Your task to perform on an android device: empty trash in the gmail app Image 0: 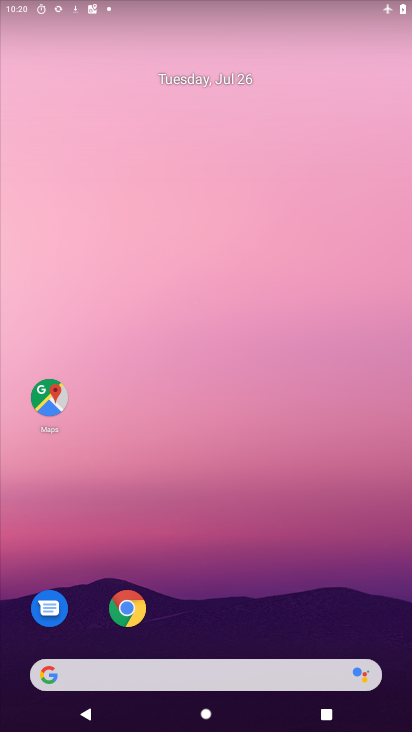
Step 0: drag from (209, 604) to (201, 81)
Your task to perform on an android device: empty trash in the gmail app Image 1: 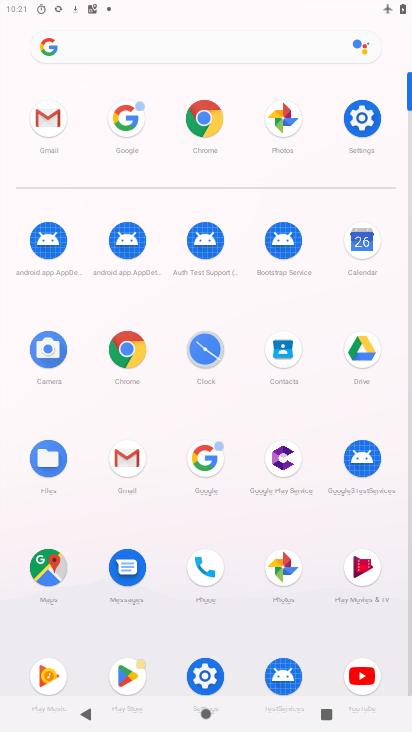
Step 1: click (31, 120)
Your task to perform on an android device: empty trash in the gmail app Image 2: 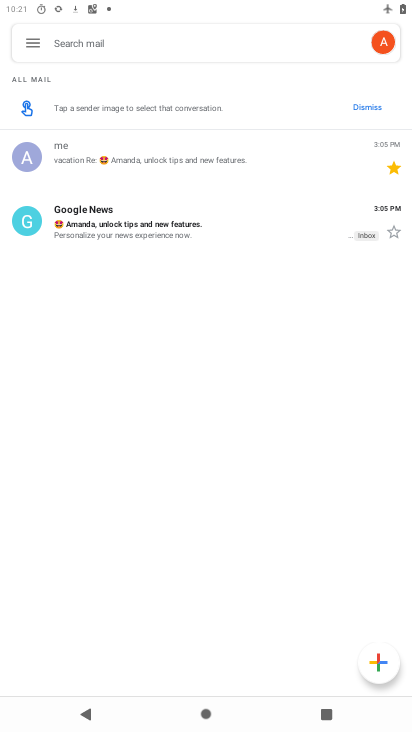
Step 2: click (30, 33)
Your task to perform on an android device: empty trash in the gmail app Image 3: 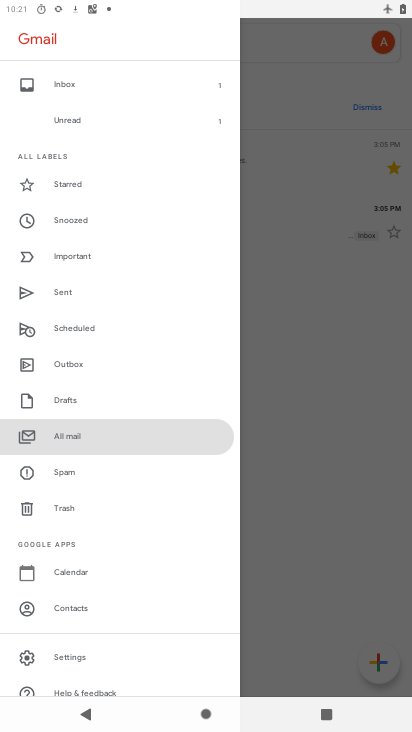
Step 3: click (73, 498)
Your task to perform on an android device: empty trash in the gmail app Image 4: 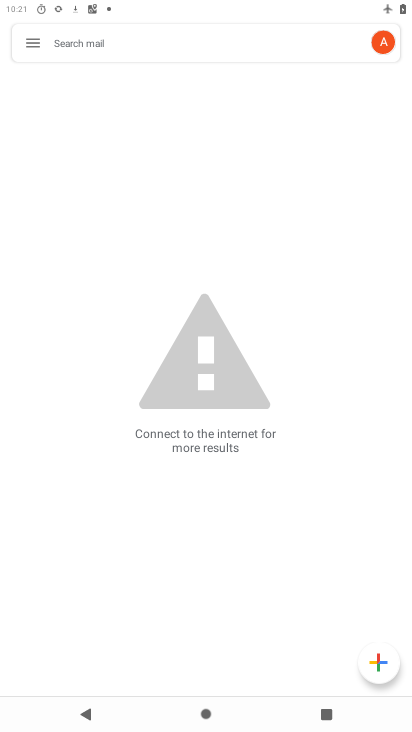
Step 4: task complete